Your task to perform on an android device: What's the weather going to be this weekend? Image 0: 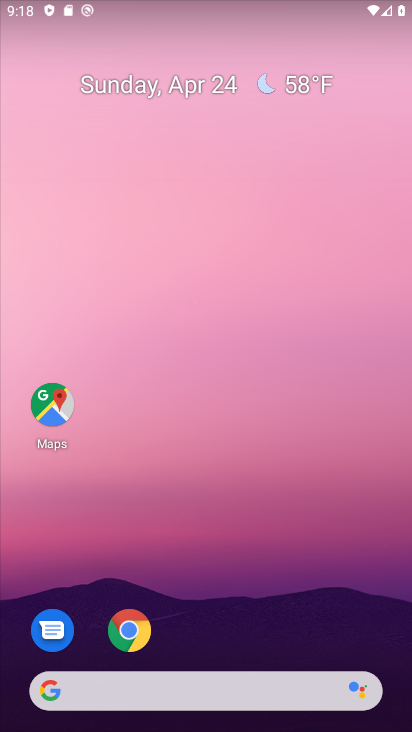
Step 0: drag from (227, 623) to (291, 94)
Your task to perform on an android device: What's the weather going to be this weekend? Image 1: 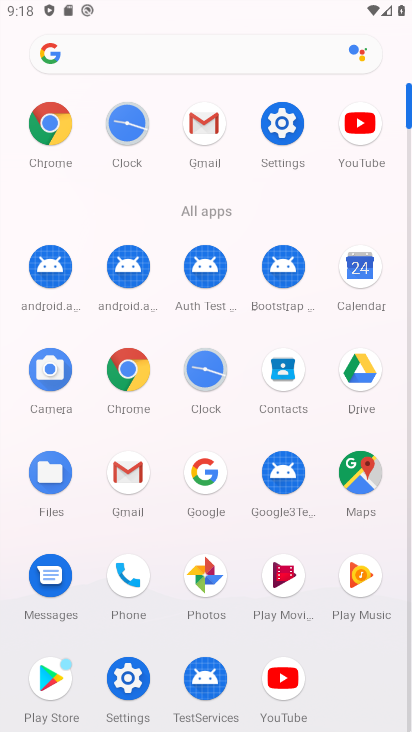
Step 1: click (202, 489)
Your task to perform on an android device: What's the weather going to be this weekend? Image 2: 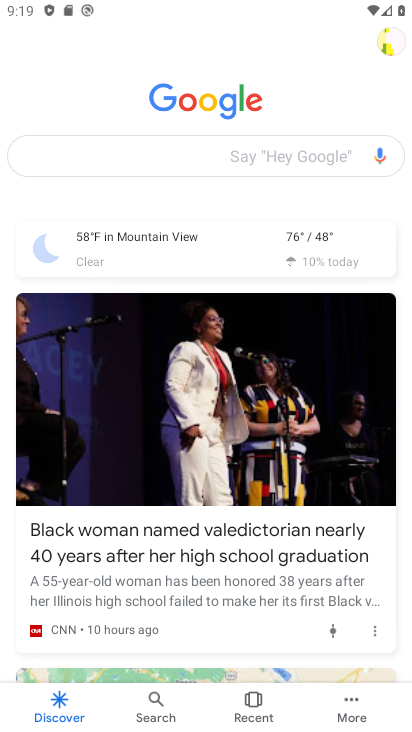
Step 2: click (243, 153)
Your task to perform on an android device: What's the weather going to be this weekend? Image 3: 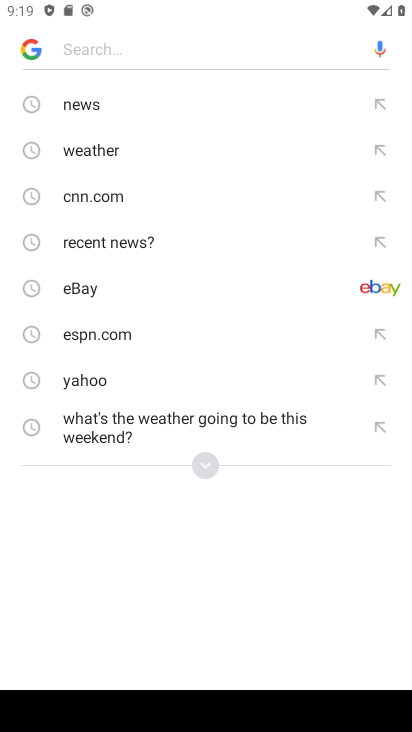
Step 3: click (178, 51)
Your task to perform on an android device: What's the weather going to be this weekend? Image 4: 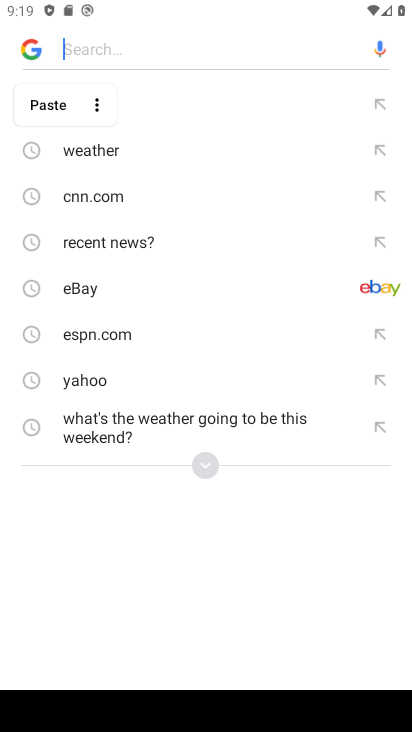
Step 4: click (239, 152)
Your task to perform on an android device: What's the weather going to be this weekend? Image 5: 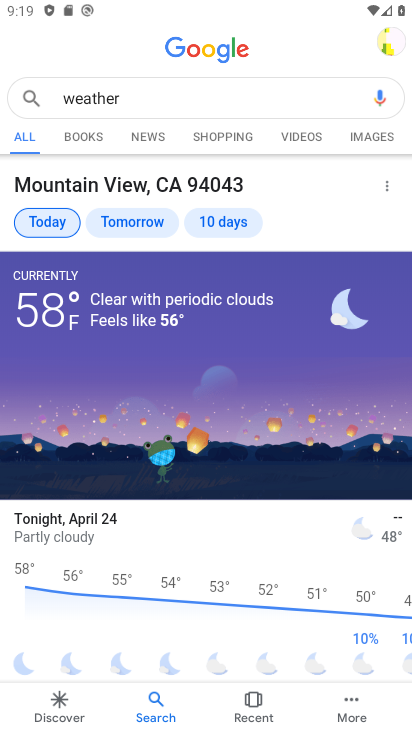
Step 5: click (219, 226)
Your task to perform on an android device: What's the weather going to be this weekend? Image 6: 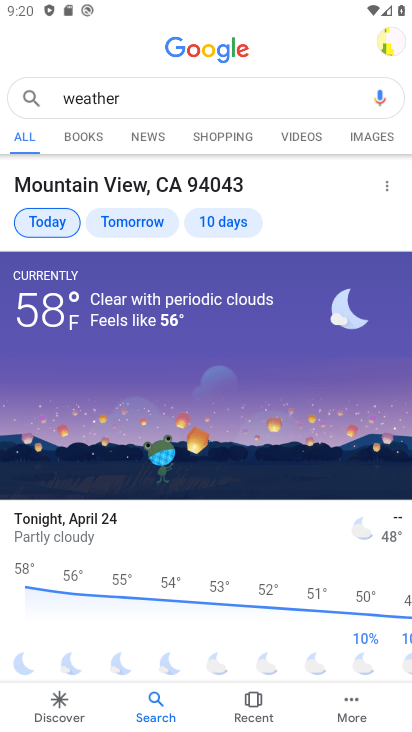
Step 6: task complete